Your task to perform on an android device: empty trash in google photos Image 0: 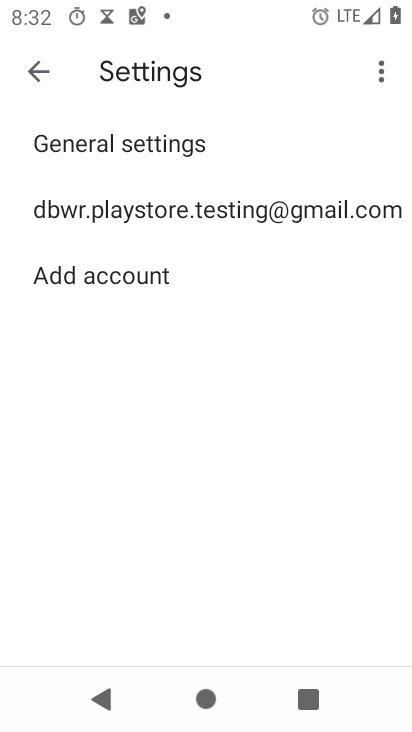
Step 0: press home button
Your task to perform on an android device: empty trash in google photos Image 1: 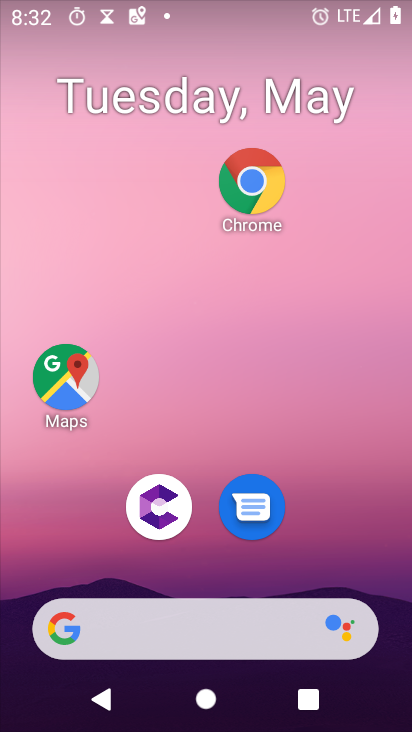
Step 1: drag from (223, 582) to (129, 44)
Your task to perform on an android device: empty trash in google photos Image 2: 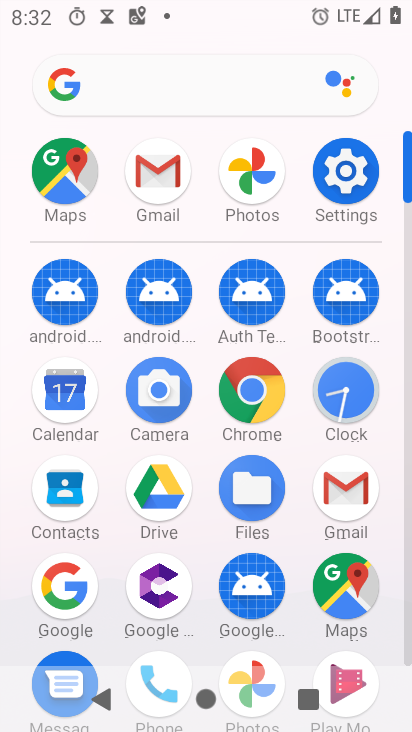
Step 2: click (243, 186)
Your task to perform on an android device: empty trash in google photos Image 3: 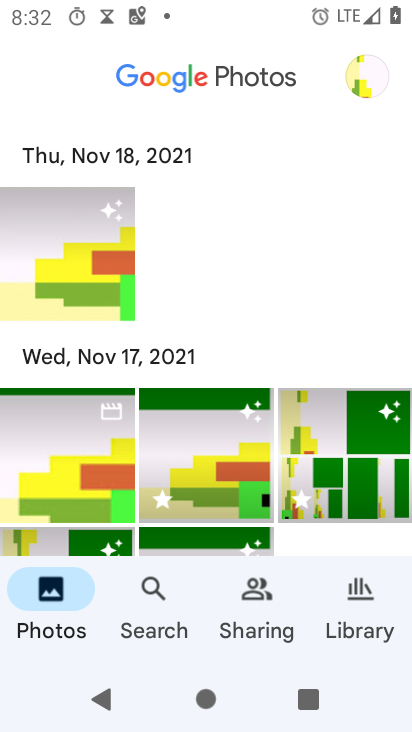
Step 3: click (353, 617)
Your task to perform on an android device: empty trash in google photos Image 4: 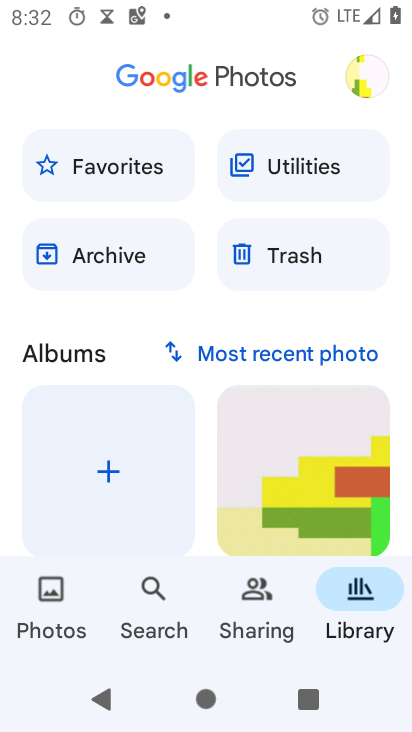
Step 4: click (274, 256)
Your task to perform on an android device: empty trash in google photos Image 5: 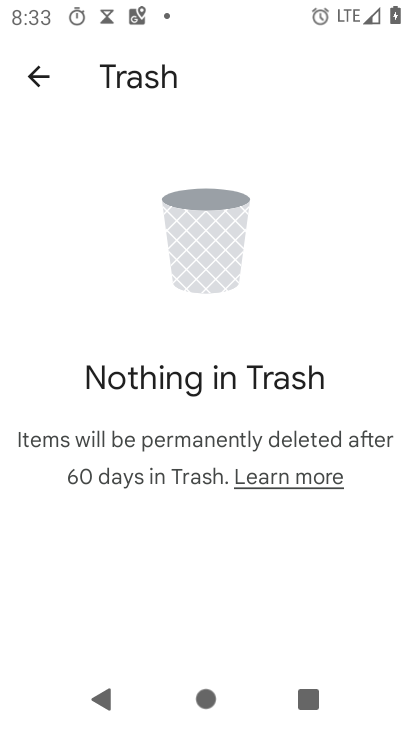
Step 5: task complete